Your task to perform on an android device: What's the weather? Image 0: 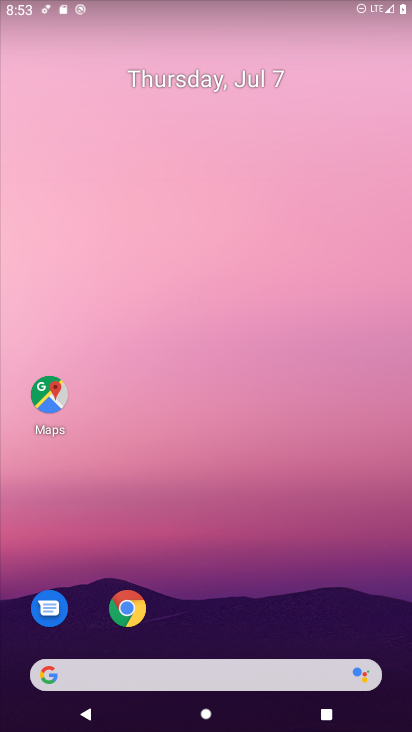
Step 0: drag from (9, 133) to (385, 160)
Your task to perform on an android device: What's the weather? Image 1: 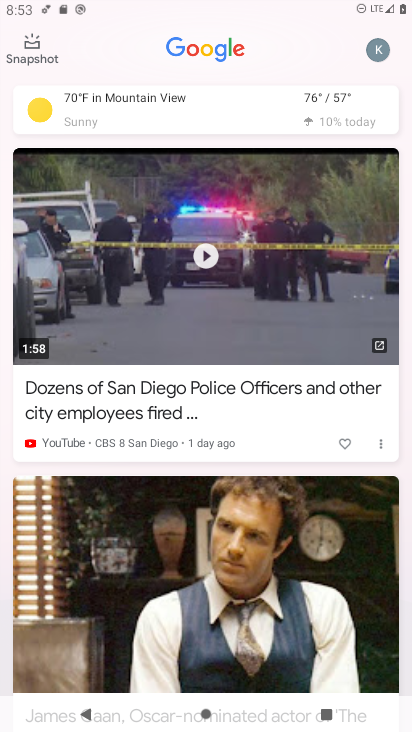
Step 1: click (95, 98)
Your task to perform on an android device: What's the weather? Image 2: 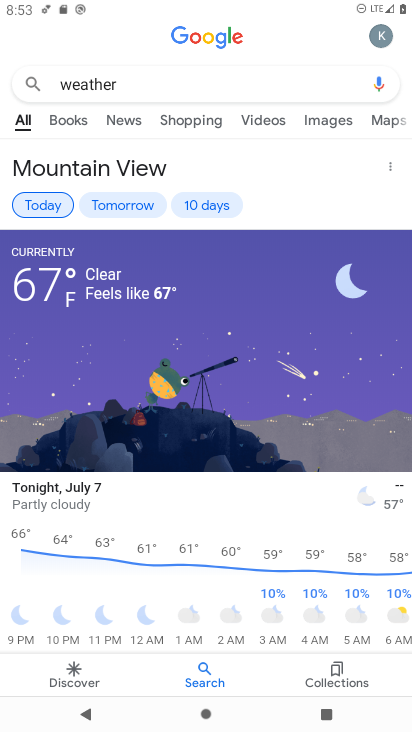
Step 2: task complete